Your task to perform on an android device: Open Yahoo.com Image 0: 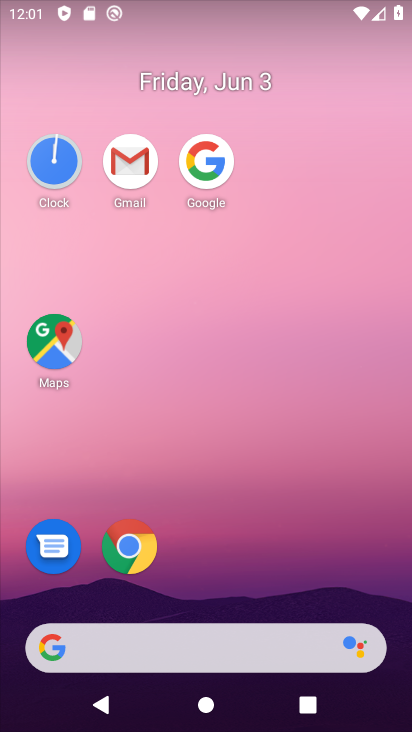
Step 0: click (136, 551)
Your task to perform on an android device: Open Yahoo.com Image 1: 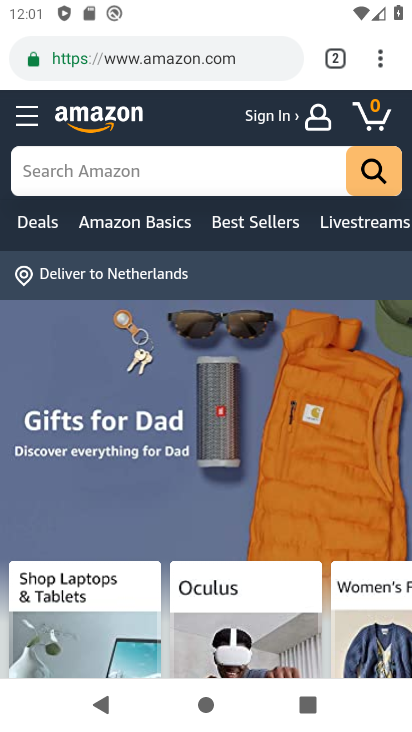
Step 1: click (338, 58)
Your task to perform on an android device: Open Yahoo.com Image 2: 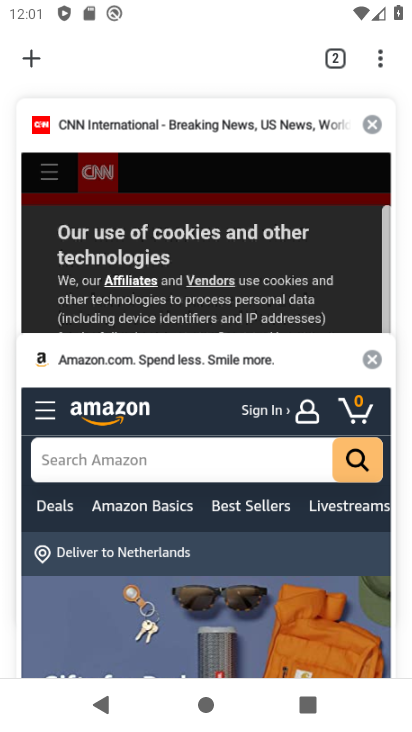
Step 2: click (25, 64)
Your task to perform on an android device: Open Yahoo.com Image 3: 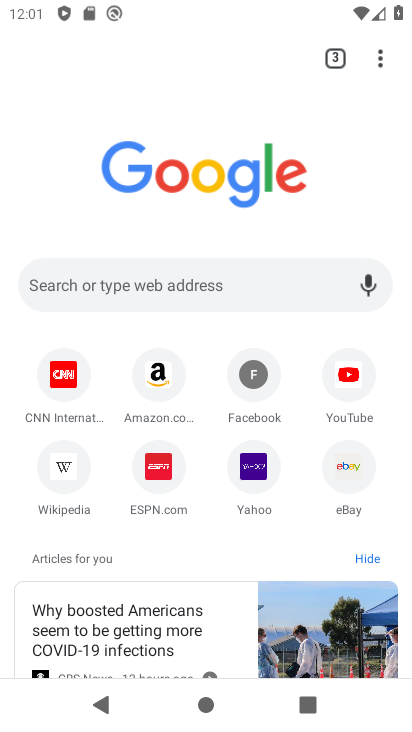
Step 3: click (264, 467)
Your task to perform on an android device: Open Yahoo.com Image 4: 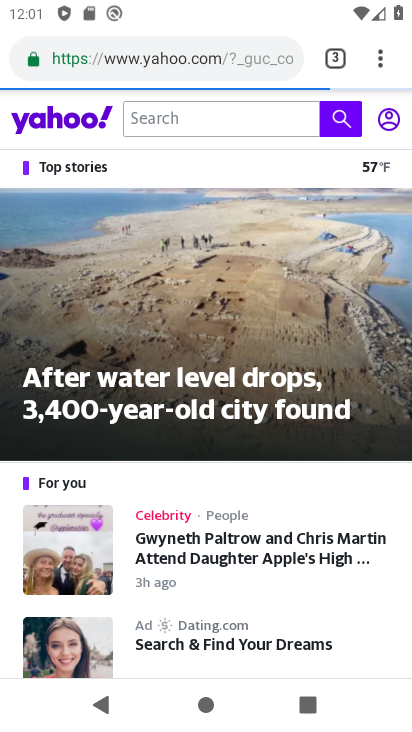
Step 4: task complete